Your task to perform on an android device: toggle wifi Image 0: 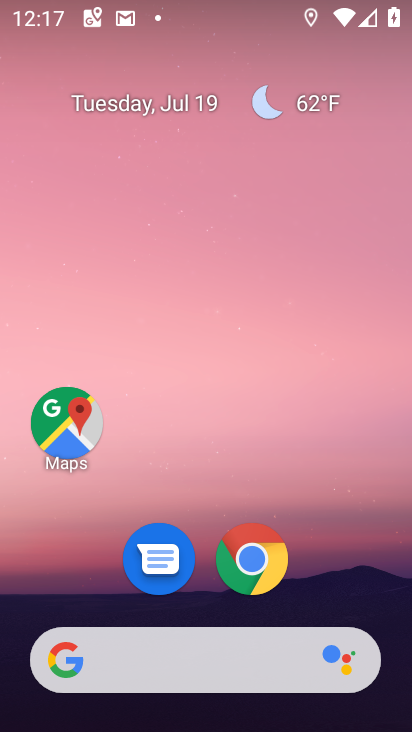
Step 0: drag from (218, 604) to (259, 156)
Your task to perform on an android device: toggle wifi Image 1: 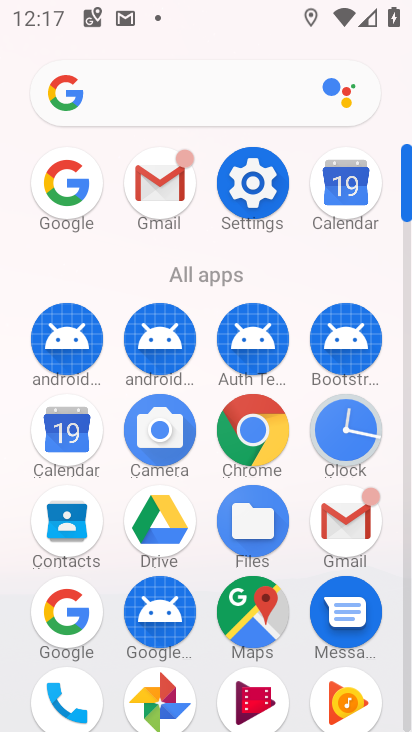
Step 1: click (268, 197)
Your task to perform on an android device: toggle wifi Image 2: 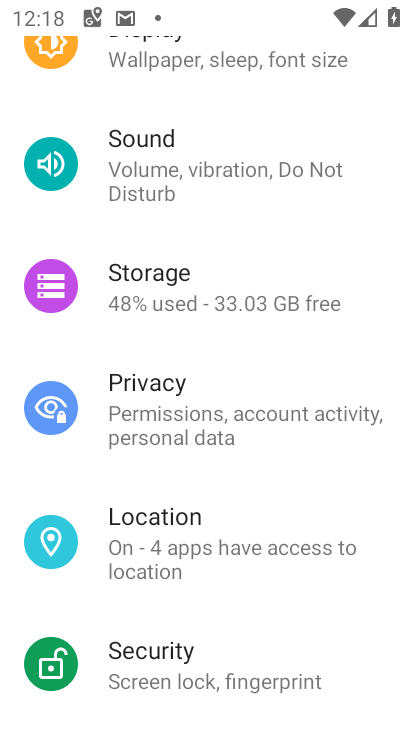
Step 2: drag from (208, 337) to (161, 699)
Your task to perform on an android device: toggle wifi Image 3: 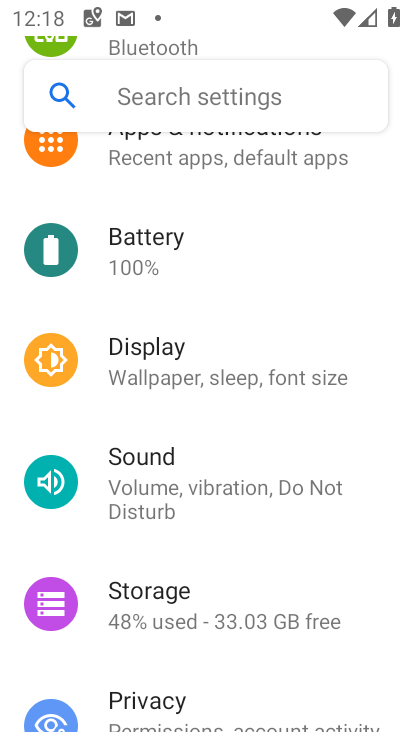
Step 3: drag from (176, 239) to (176, 604)
Your task to perform on an android device: toggle wifi Image 4: 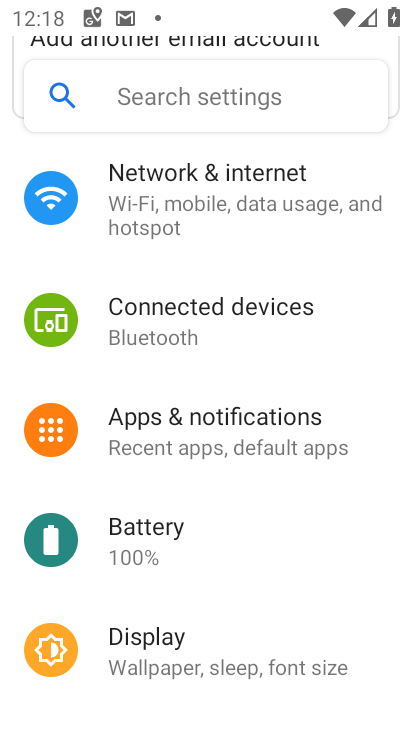
Step 4: drag from (219, 322) to (187, 486)
Your task to perform on an android device: toggle wifi Image 5: 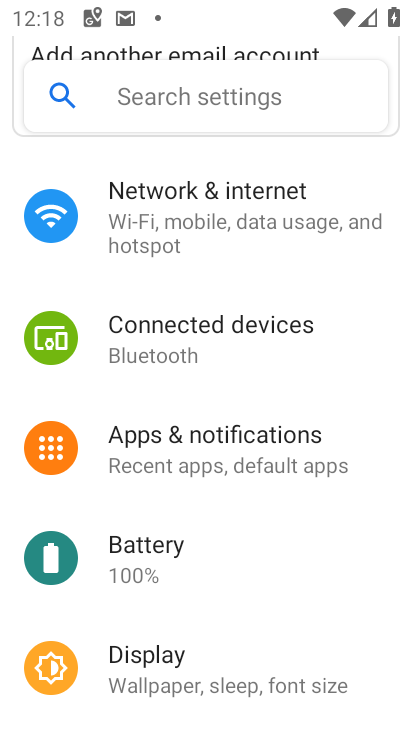
Step 5: click (201, 223)
Your task to perform on an android device: toggle wifi Image 6: 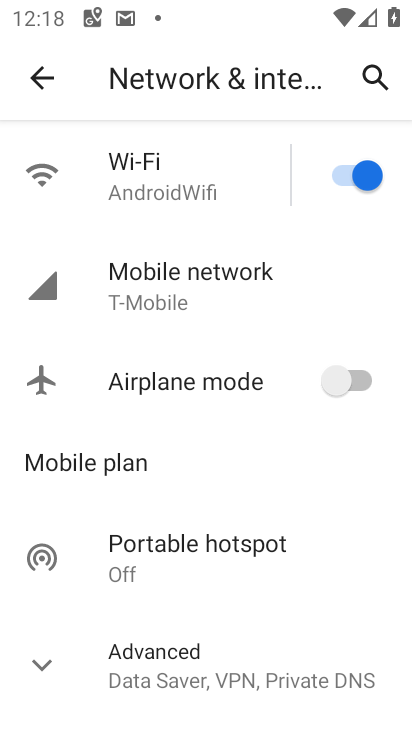
Step 6: click (341, 188)
Your task to perform on an android device: toggle wifi Image 7: 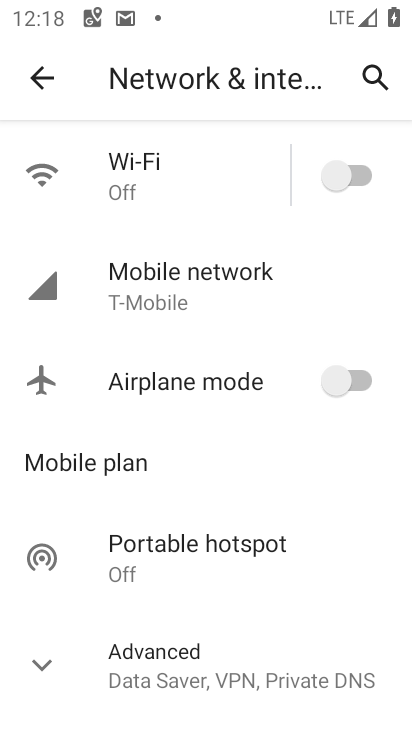
Step 7: task complete